Your task to perform on an android device: What is the recent news? Image 0: 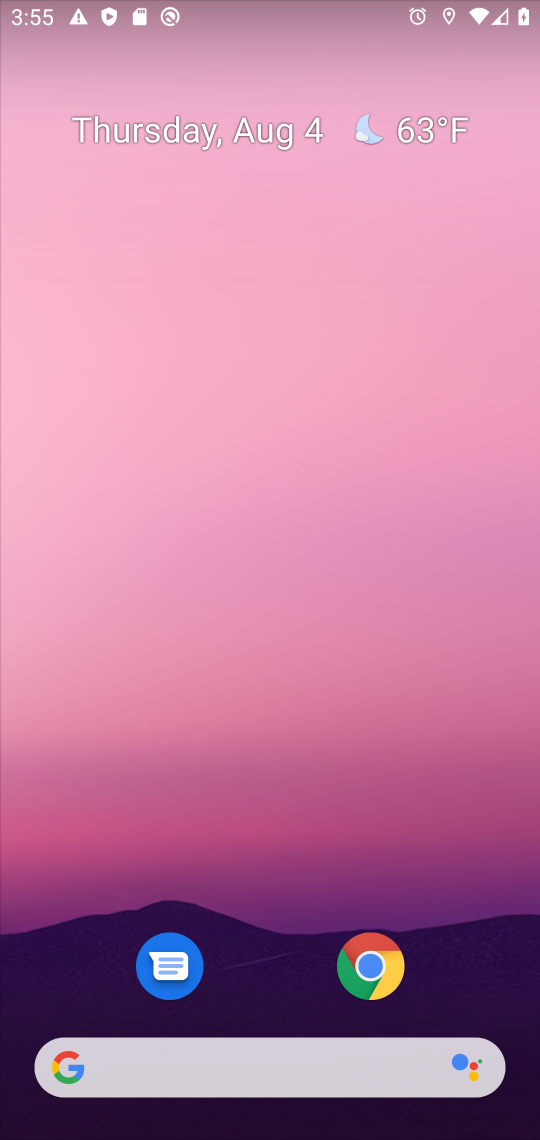
Step 0: press home button
Your task to perform on an android device: What is the recent news? Image 1: 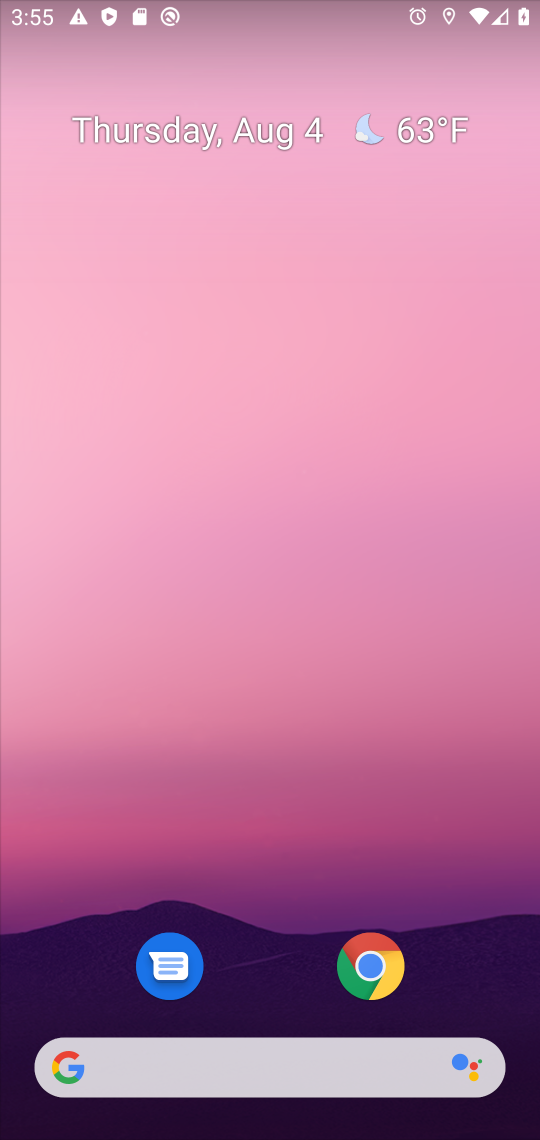
Step 1: click (58, 1078)
Your task to perform on an android device: What is the recent news? Image 2: 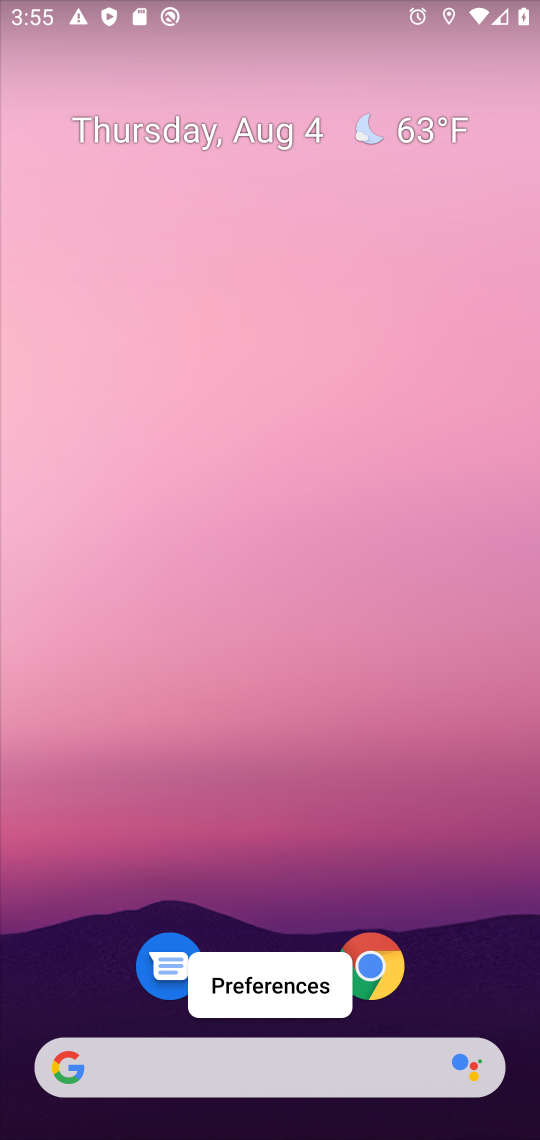
Step 2: click (52, 1067)
Your task to perform on an android device: What is the recent news? Image 3: 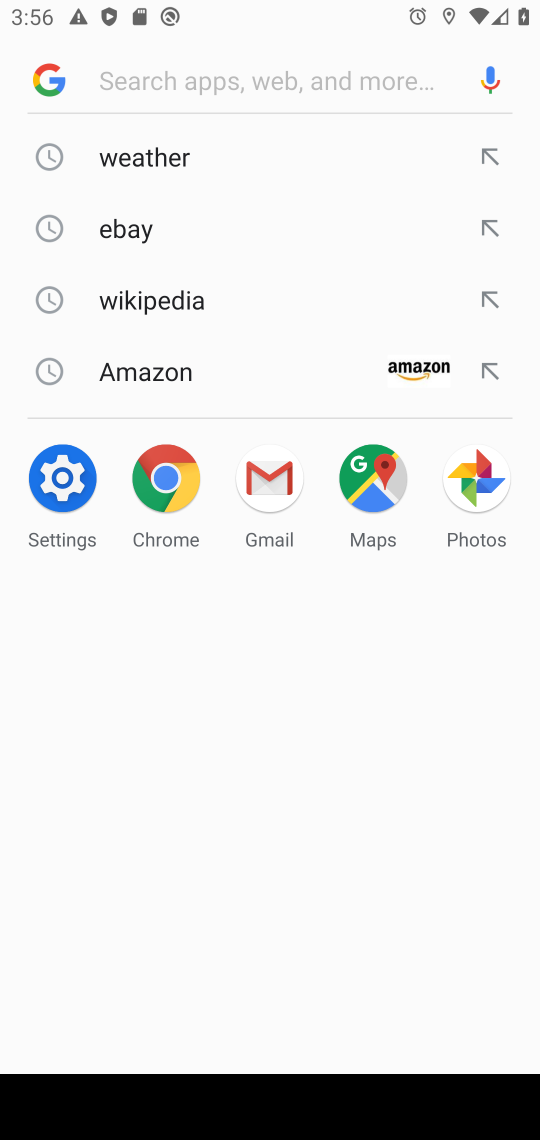
Step 3: type "recent news?"
Your task to perform on an android device: What is the recent news? Image 4: 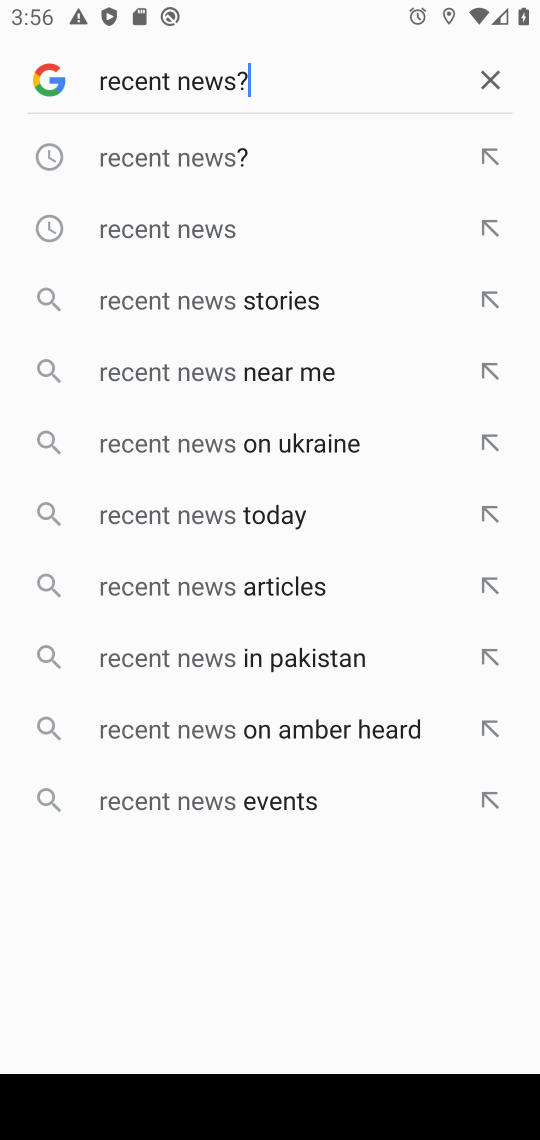
Step 4: press enter
Your task to perform on an android device: What is the recent news? Image 5: 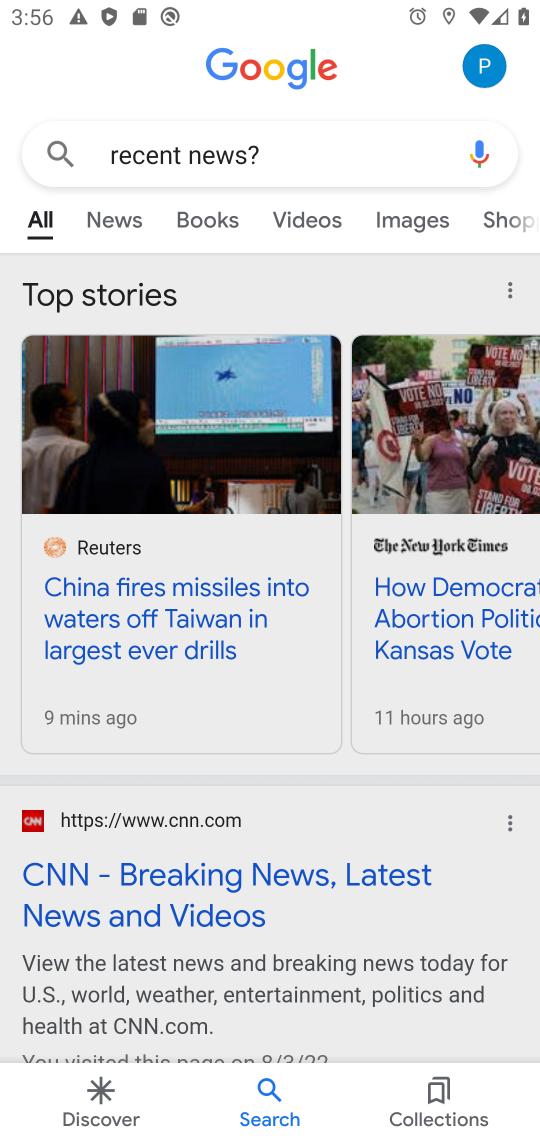
Step 5: task complete